Your task to perform on an android device: See recent photos Image 0: 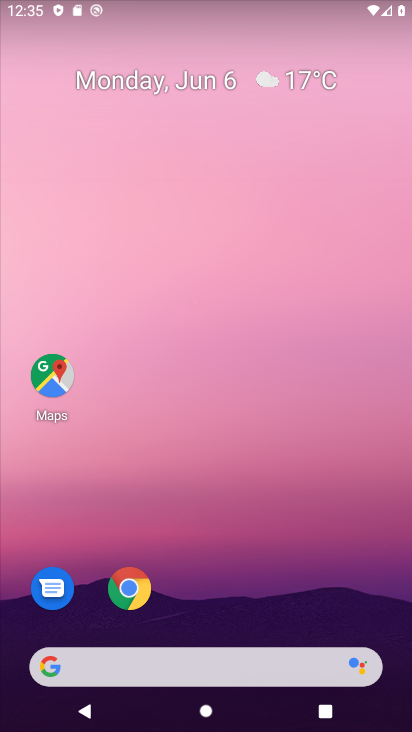
Step 0: drag from (239, 557) to (333, 102)
Your task to perform on an android device: See recent photos Image 1: 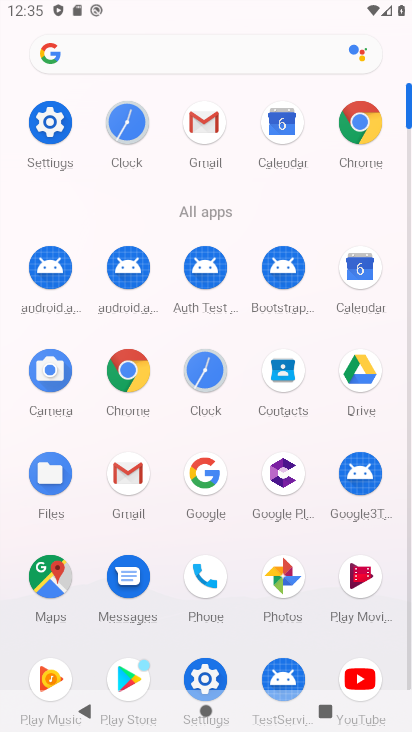
Step 1: click (283, 571)
Your task to perform on an android device: See recent photos Image 2: 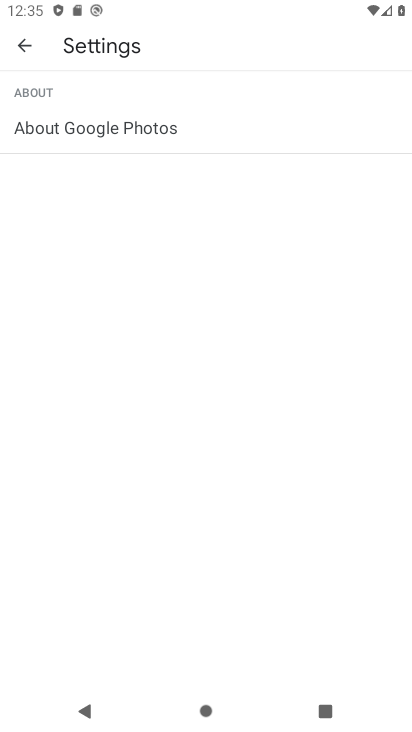
Step 2: click (8, 35)
Your task to perform on an android device: See recent photos Image 3: 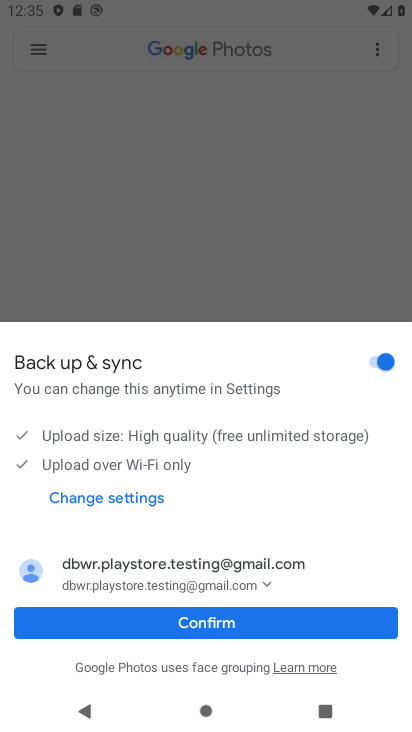
Step 3: click (214, 628)
Your task to perform on an android device: See recent photos Image 4: 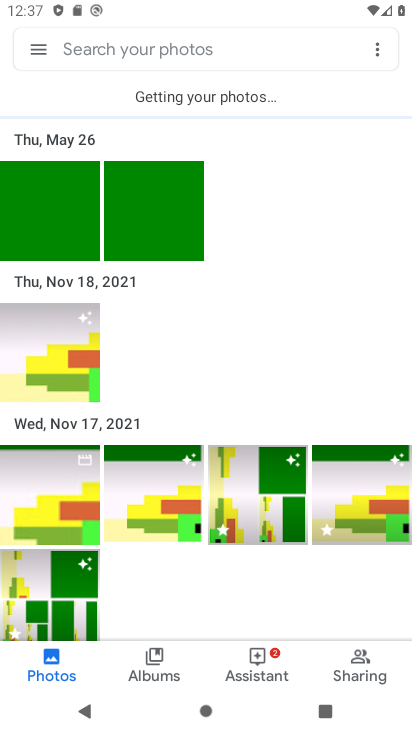
Step 4: task complete